Your task to perform on an android device: Search for Mexican restaurants on Maps Image 0: 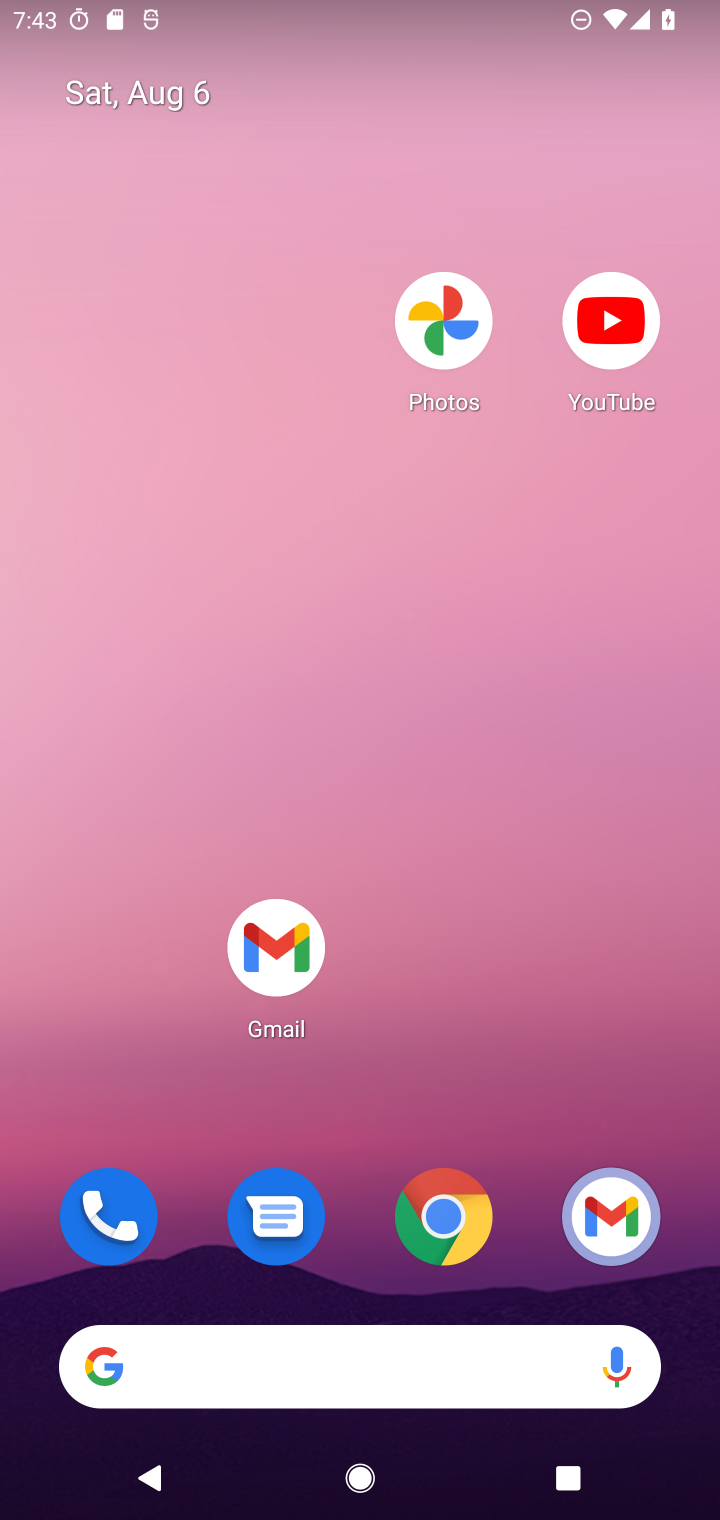
Step 0: drag from (555, 1087) to (543, 10)
Your task to perform on an android device: Search for Mexican restaurants on Maps Image 1: 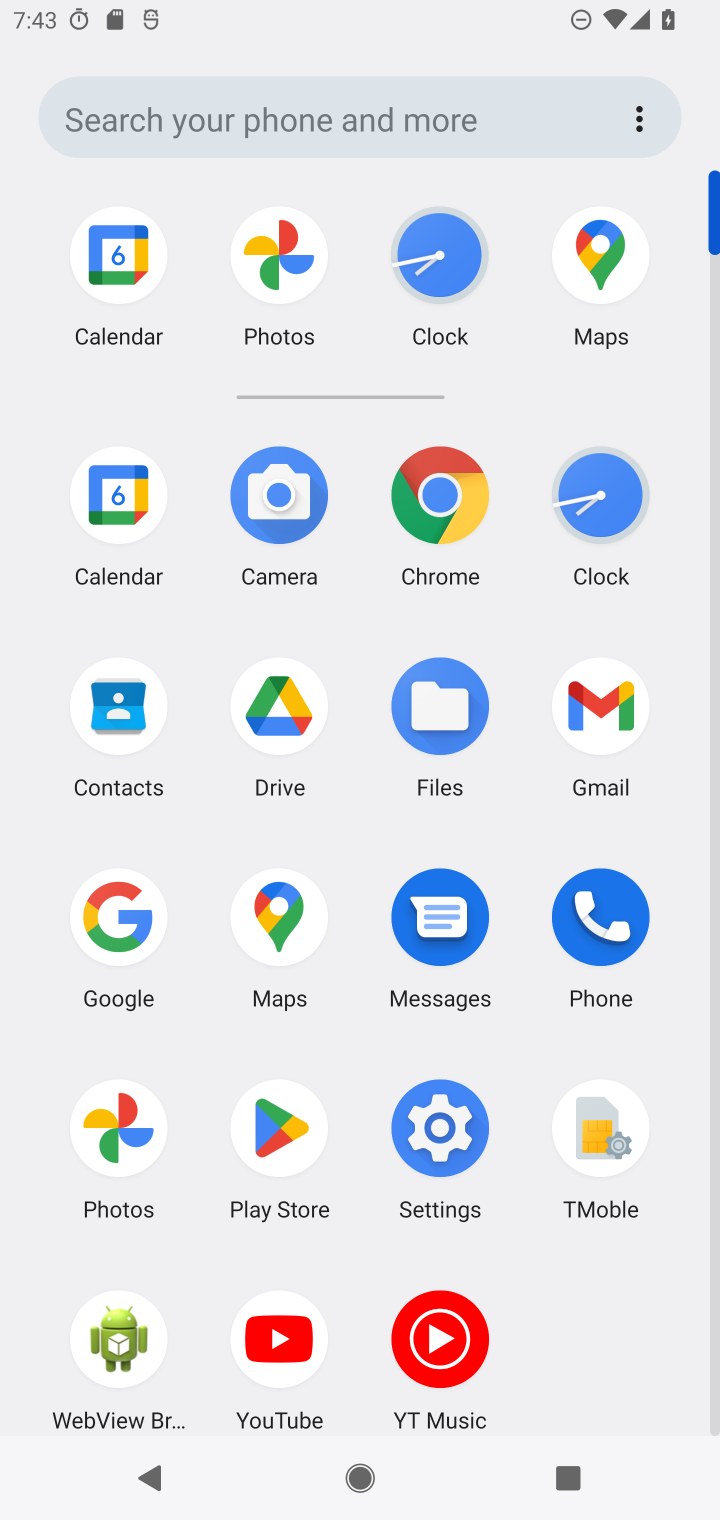
Step 1: click (282, 909)
Your task to perform on an android device: Search for Mexican restaurants on Maps Image 2: 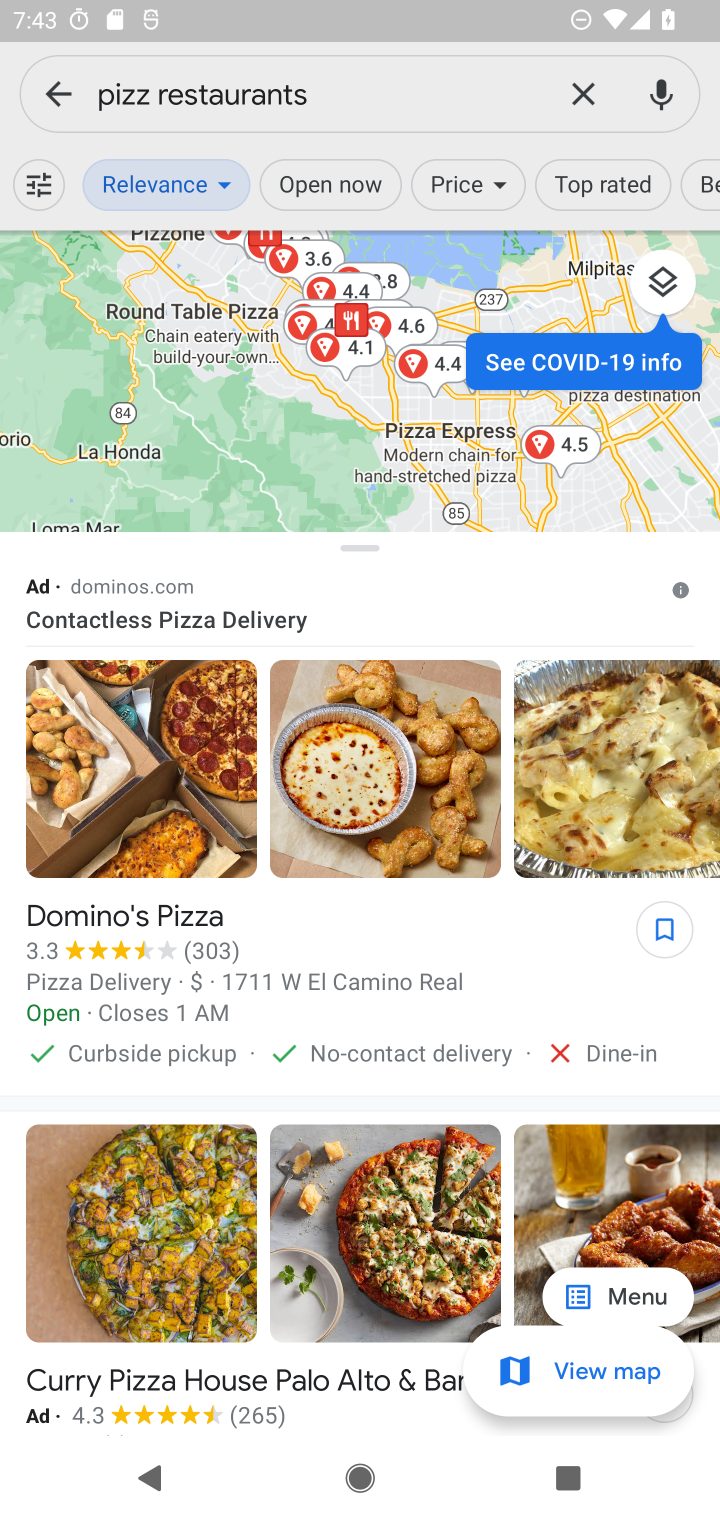
Step 2: click (436, 108)
Your task to perform on an android device: Search for Mexican restaurants on Maps Image 3: 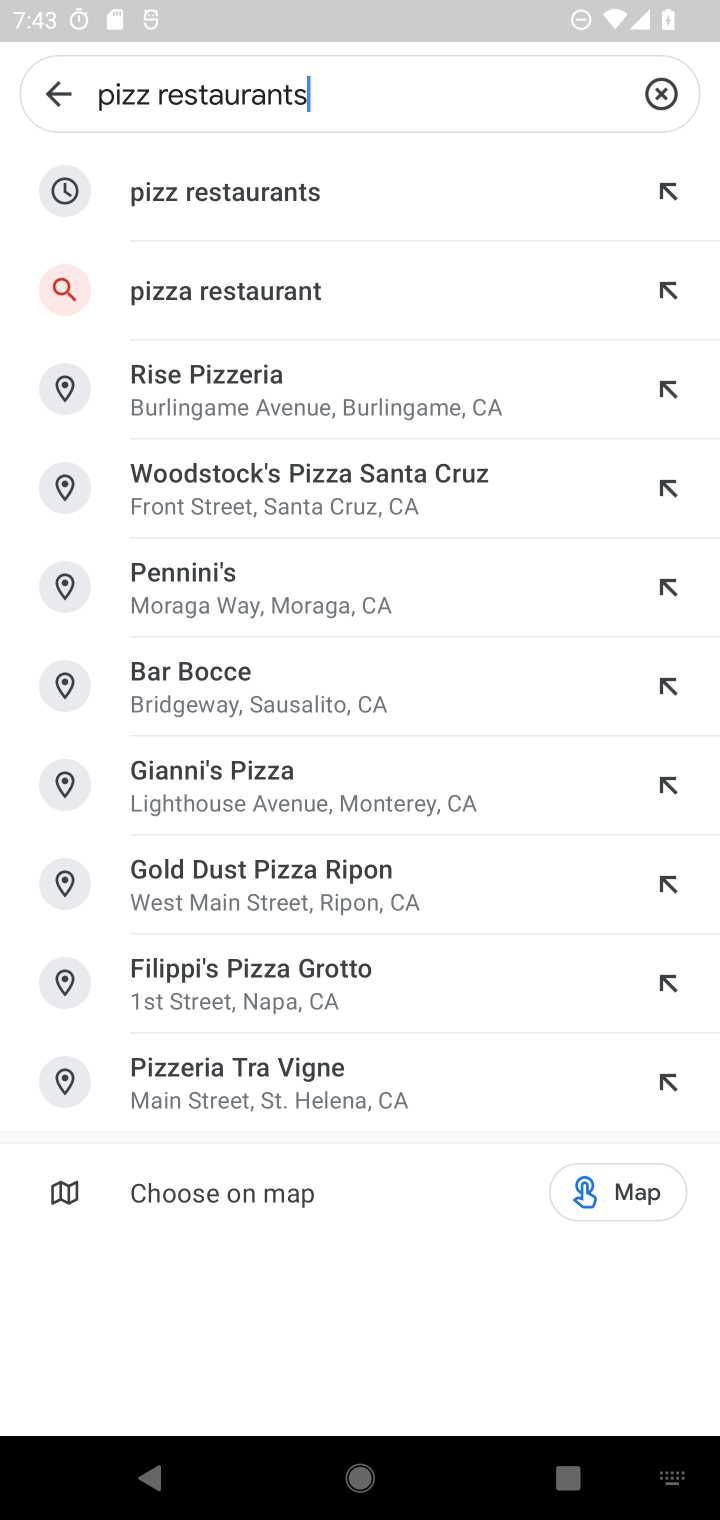
Step 3: click (668, 95)
Your task to perform on an android device: Search for Mexican restaurants on Maps Image 4: 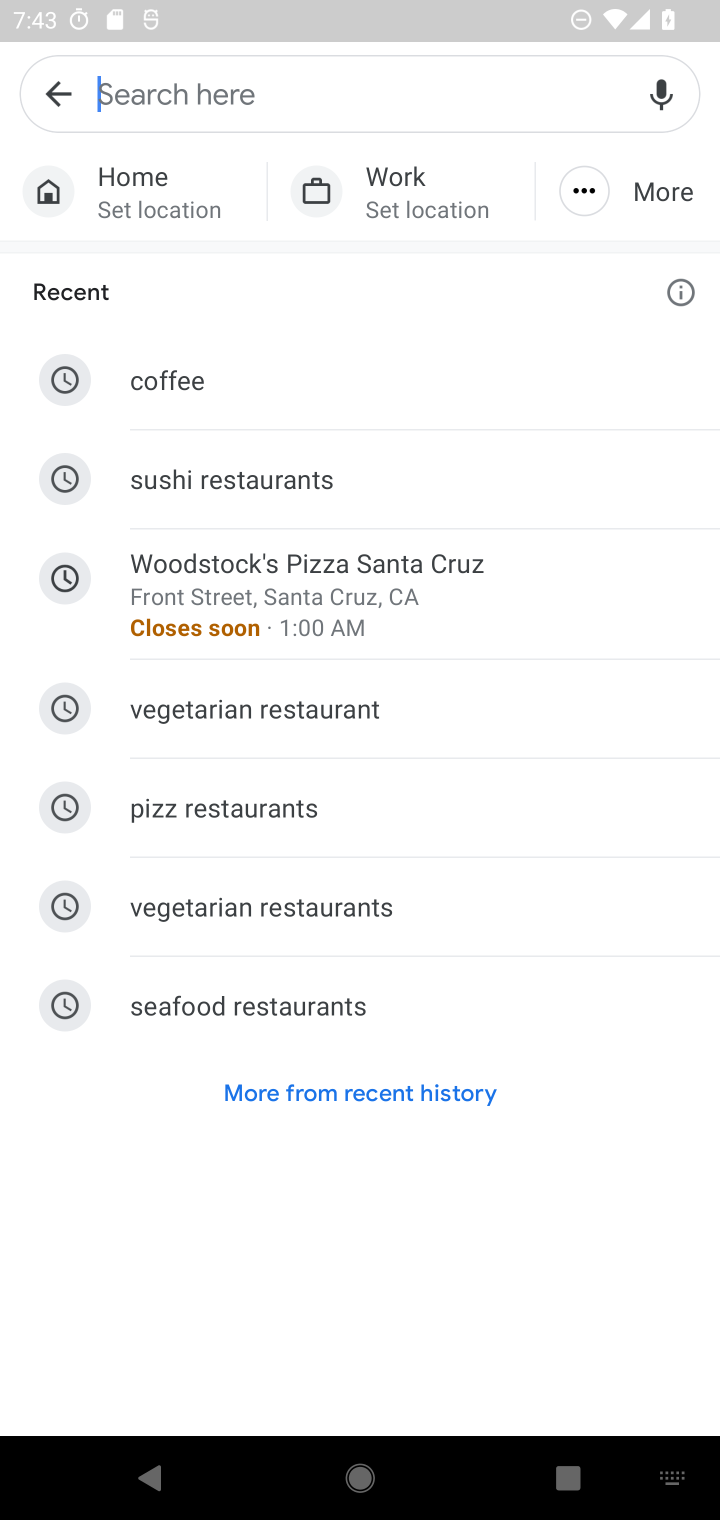
Step 4: type "Mexican restaurants"
Your task to perform on an android device: Search for Mexican restaurants on Maps Image 5: 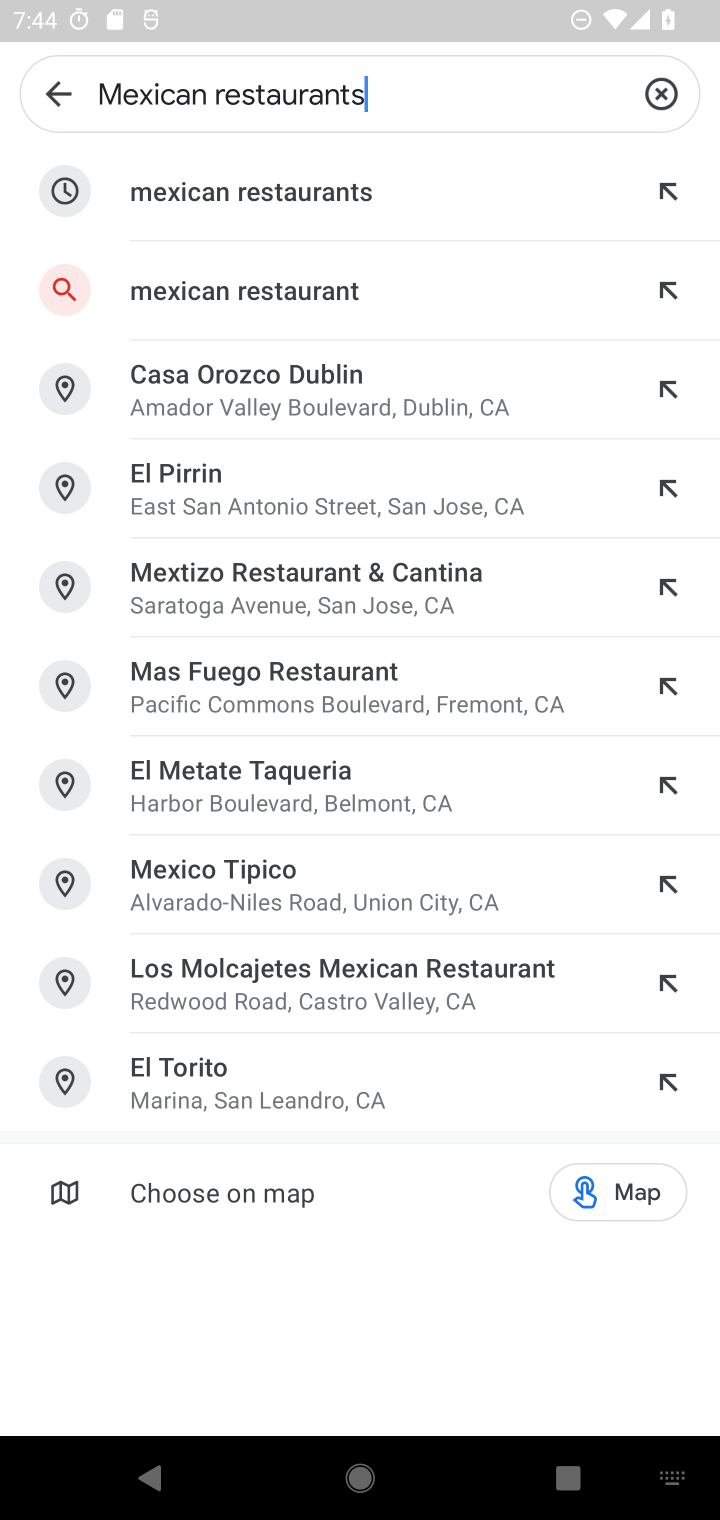
Step 5: click (329, 191)
Your task to perform on an android device: Search for Mexican restaurants on Maps Image 6: 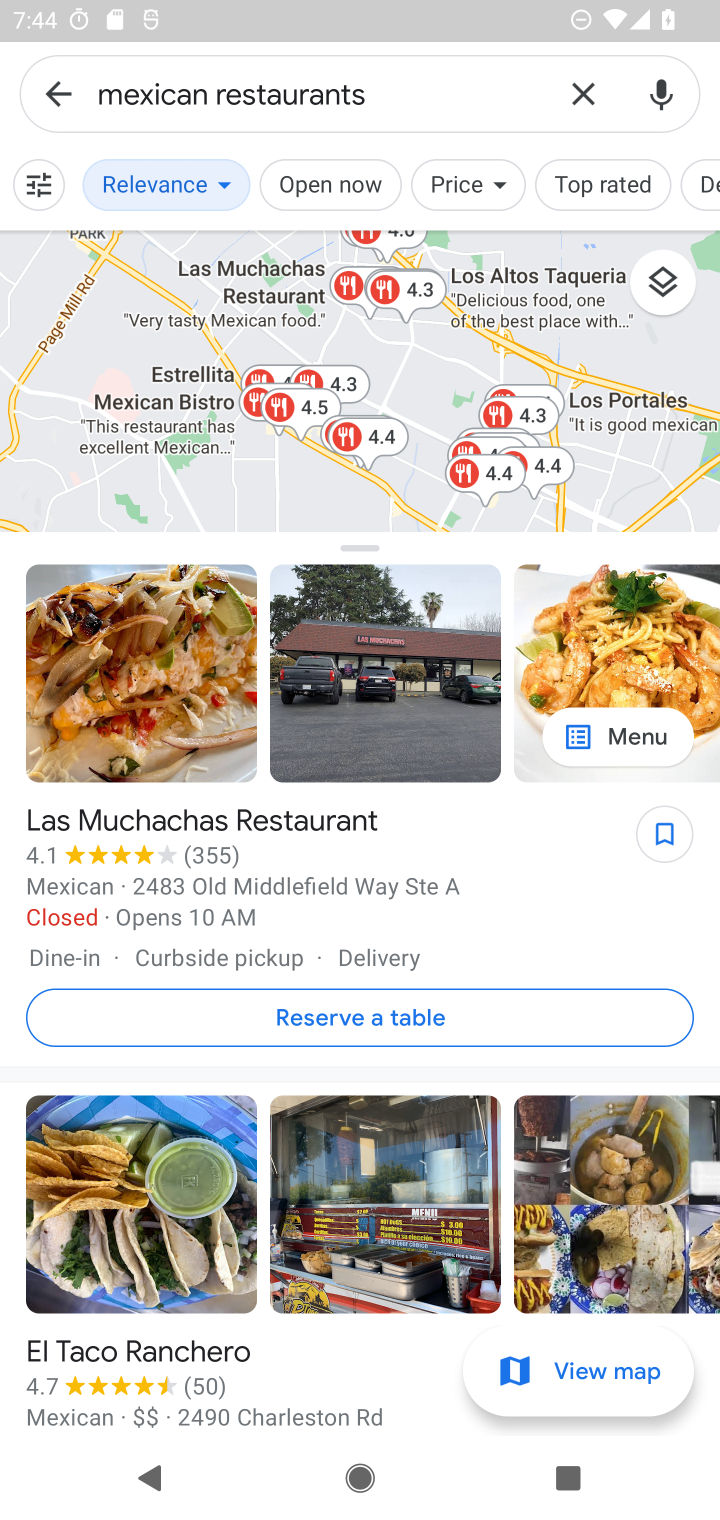
Step 6: task complete